Your task to perform on an android device: What's the weather? Image 0: 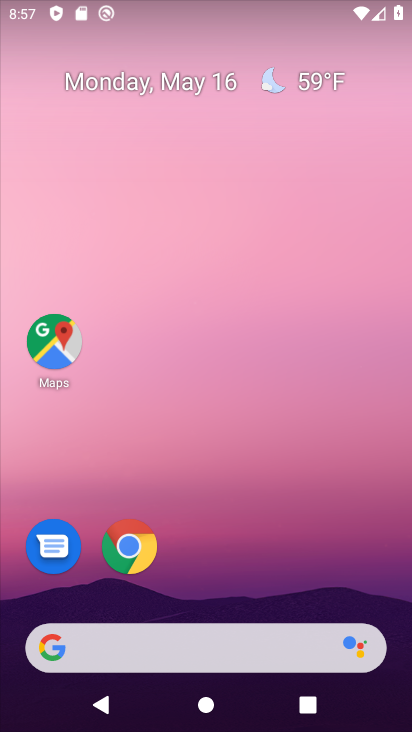
Step 0: click (317, 71)
Your task to perform on an android device: What's the weather? Image 1: 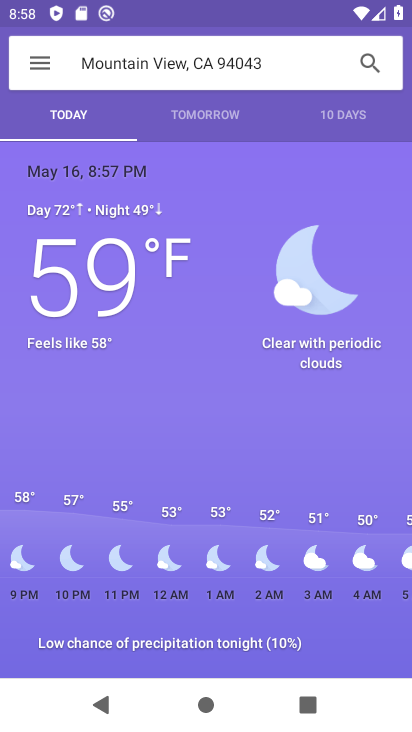
Step 1: task complete